Your task to perform on an android device: show emergency info Image 0: 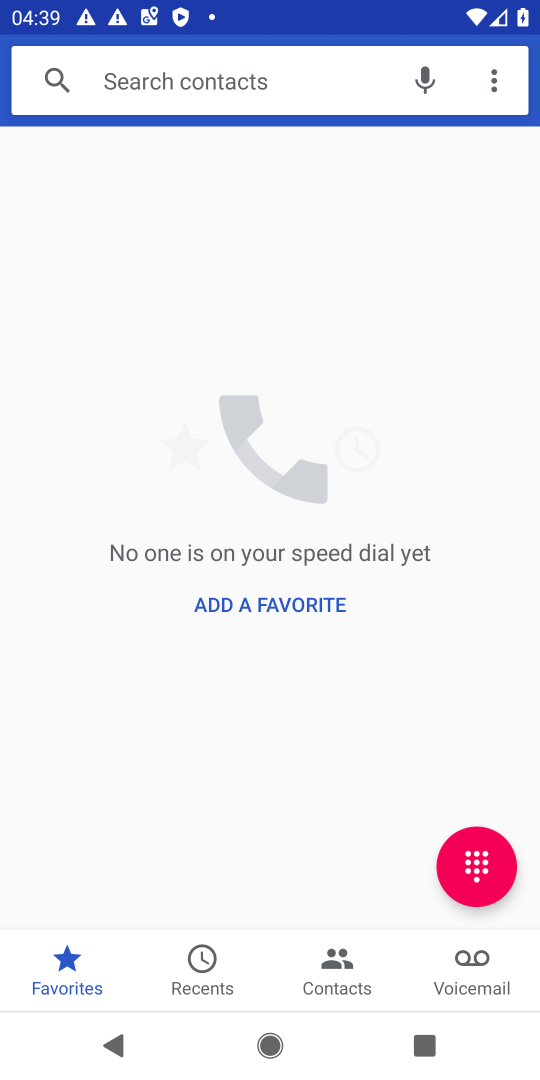
Step 0: press home button
Your task to perform on an android device: show emergency info Image 1: 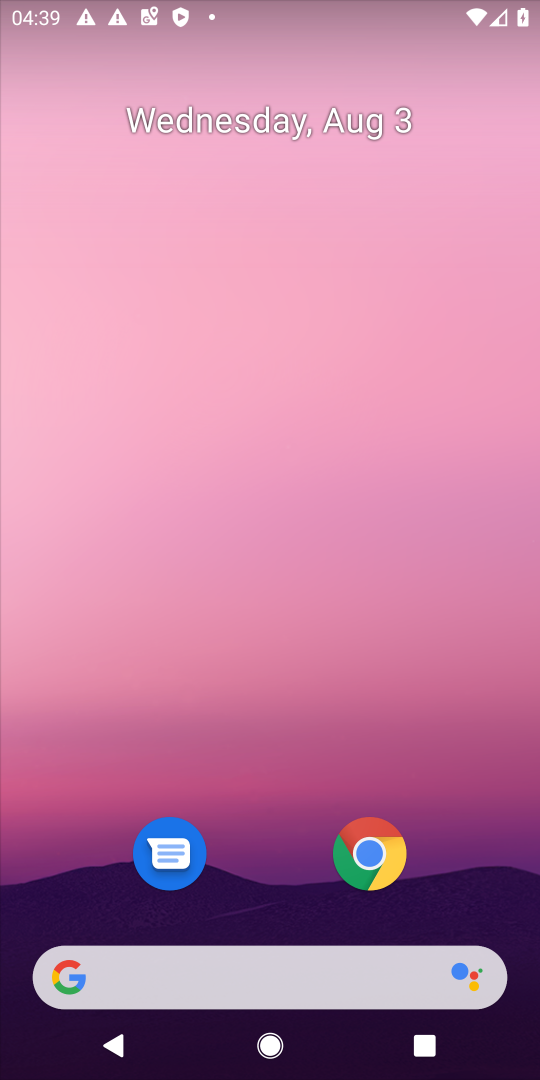
Step 1: drag from (501, 861) to (422, 6)
Your task to perform on an android device: show emergency info Image 2: 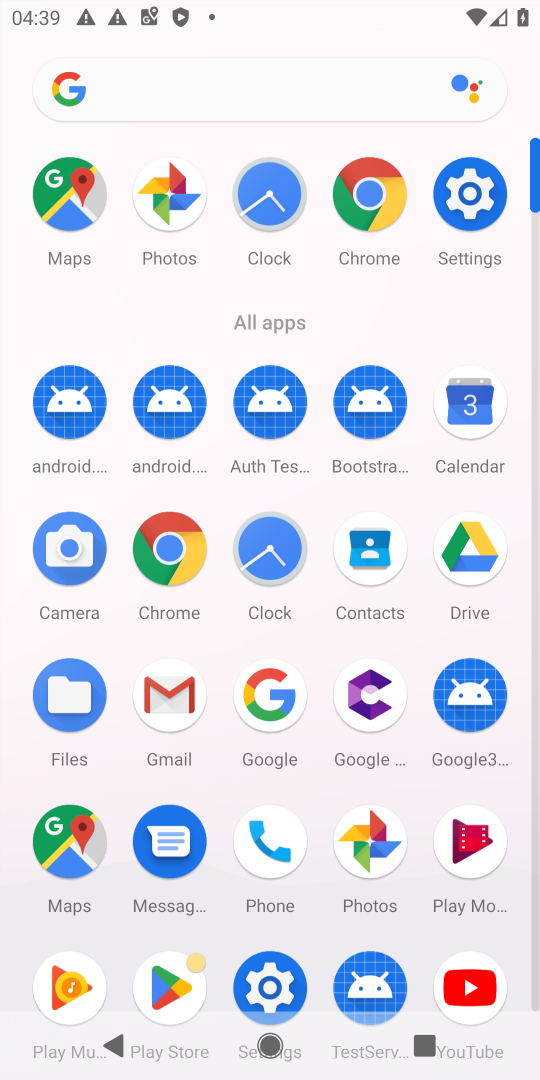
Step 2: click (458, 255)
Your task to perform on an android device: show emergency info Image 3: 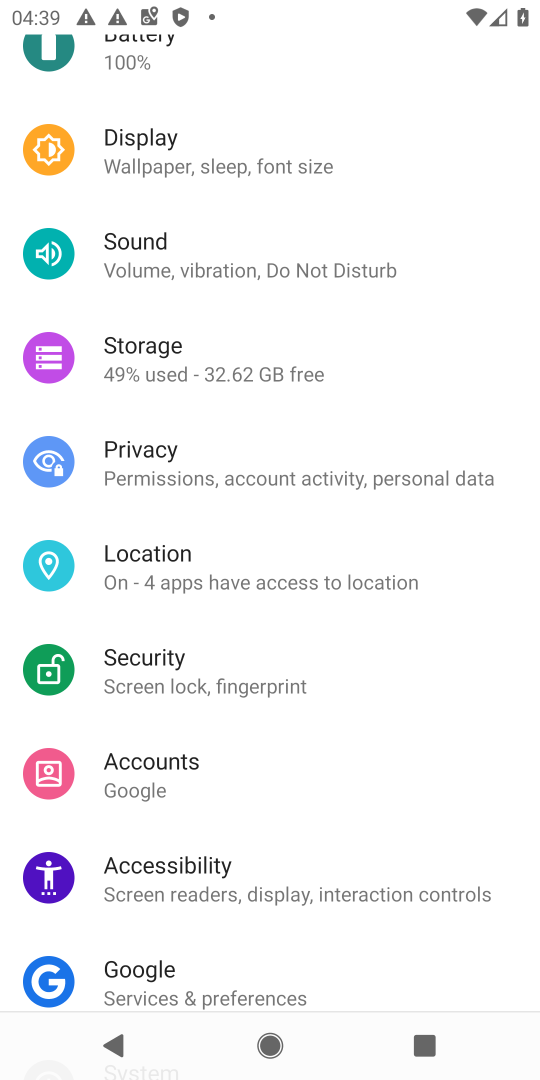
Step 3: drag from (299, 893) to (247, 196)
Your task to perform on an android device: show emergency info Image 4: 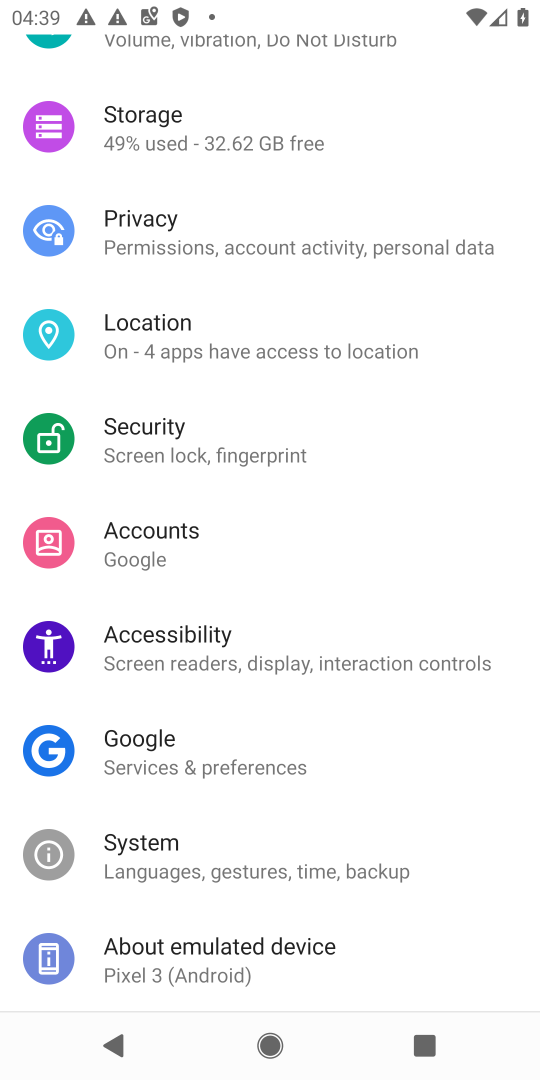
Step 4: click (350, 970)
Your task to perform on an android device: show emergency info Image 5: 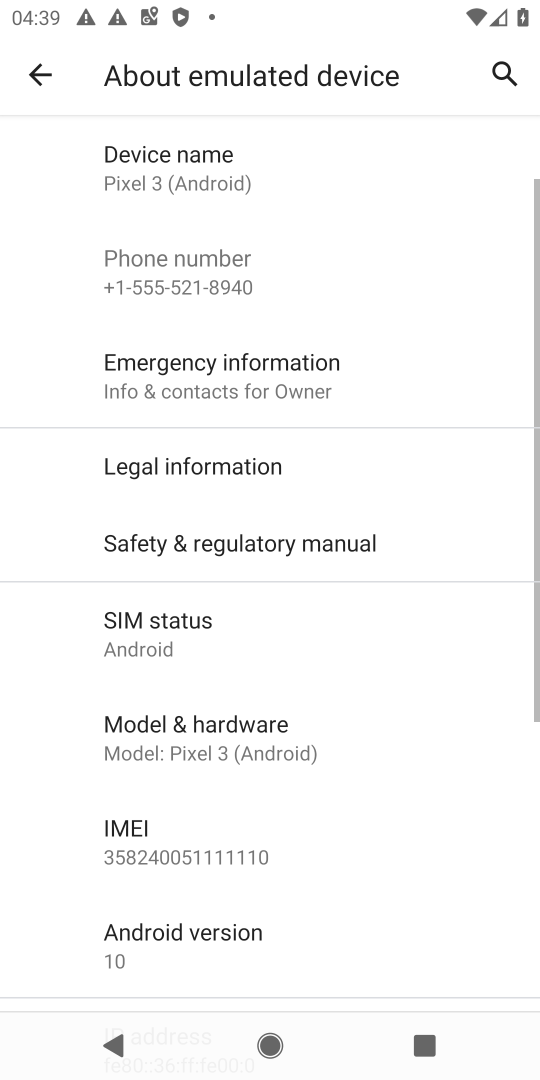
Step 5: click (403, 393)
Your task to perform on an android device: show emergency info Image 6: 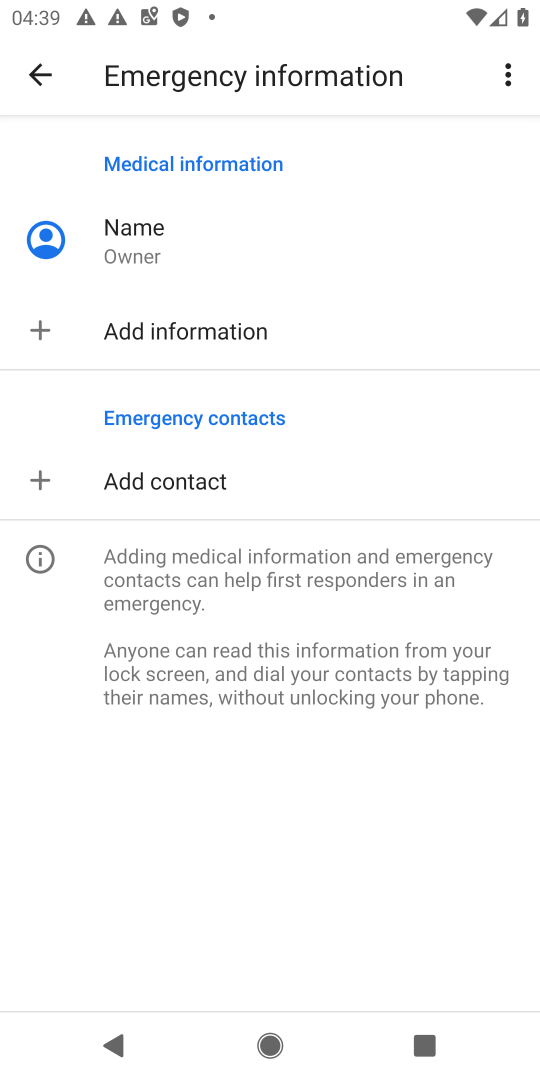
Step 6: task complete